Your task to perform on an android device: delete browsing data in the chrome app Image 0: 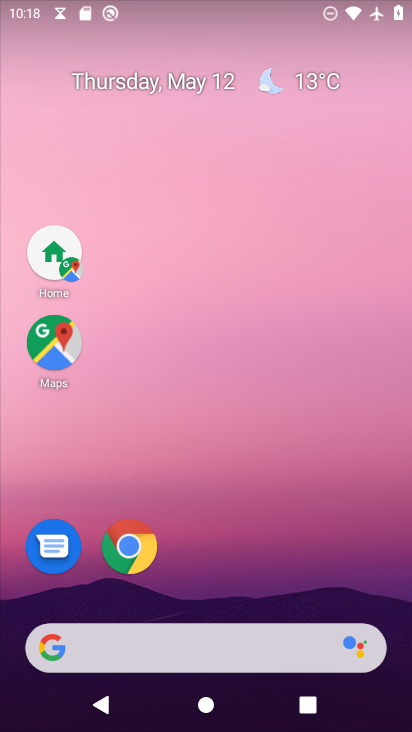
Step 0: click (139, 560)
Your task to perform on an android device: delete browsing data in the chrome app Image 1: 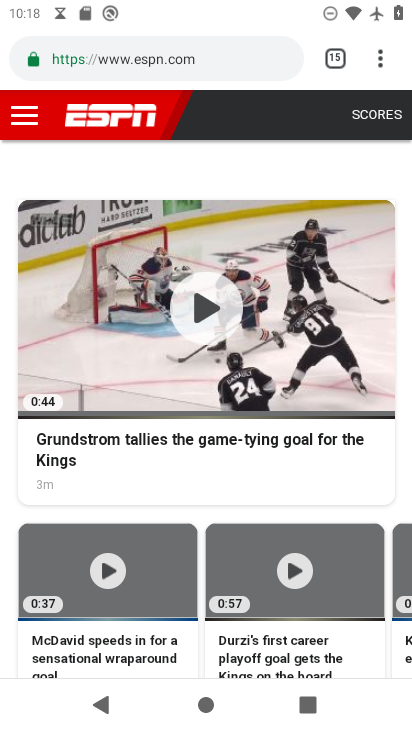
Step 1: drag from (376, 63) to (218, 584)
Your task to perform on an android device: delete browsing data in the chrome app Image 2: 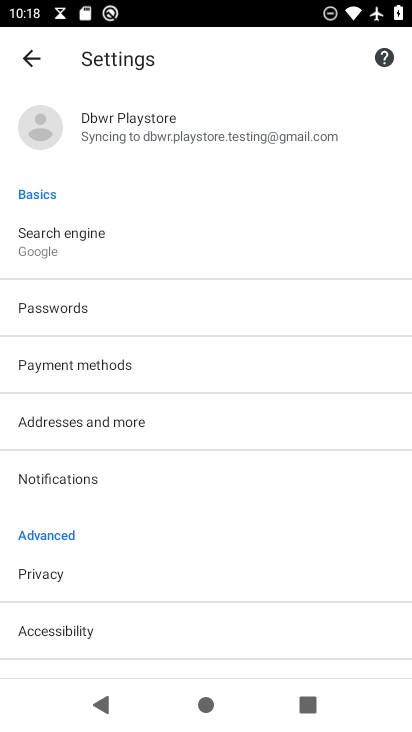
Step 2: drag from (153, 558) to (292, 319)
Your task to perform on an android device: delete browsing data in the chrome app Image 3: 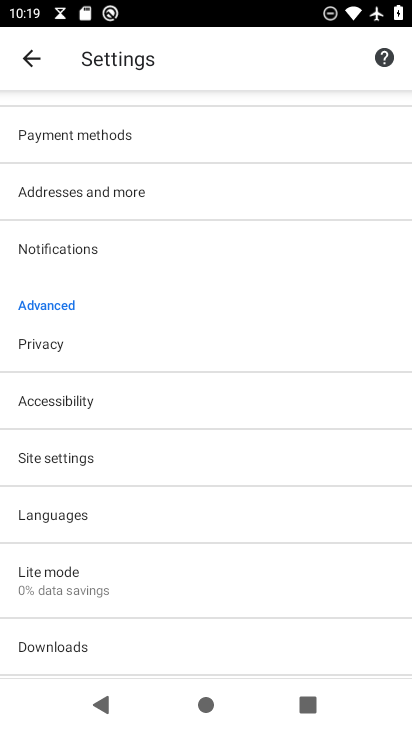
Step 3: click (47, 348)
Your task to perform on an android device: delete browsing data in the chrome app Image 4: 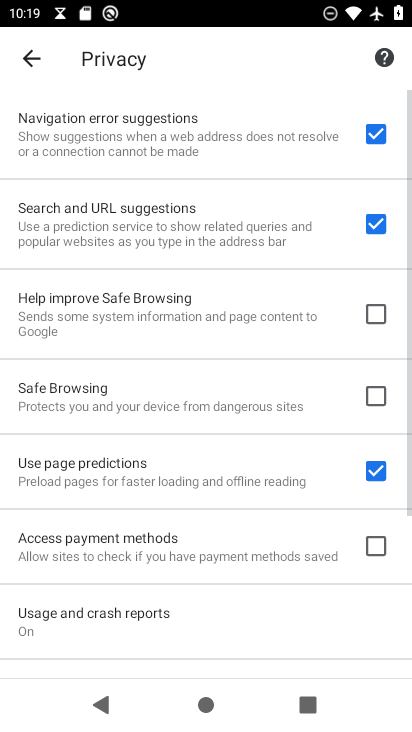
Step 4: drag from (137, 638) to (335, 112)
Your task to perform on an android device: delete browsing data in the chrome app Image 5: 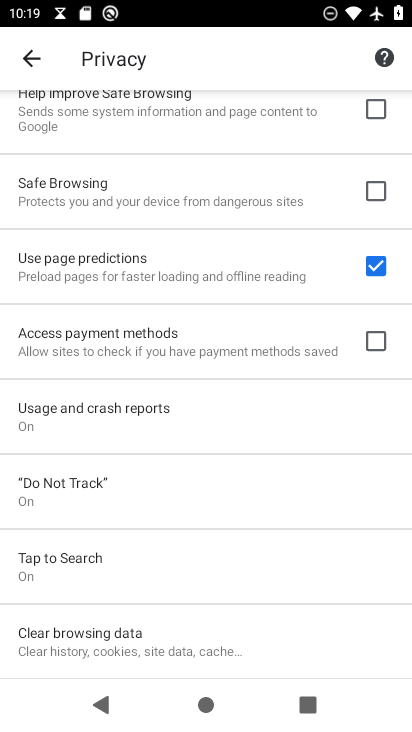
Step 5: click (55, 638)
Your task to perform on an android device: delete browsing data in the chrome app Image 6: 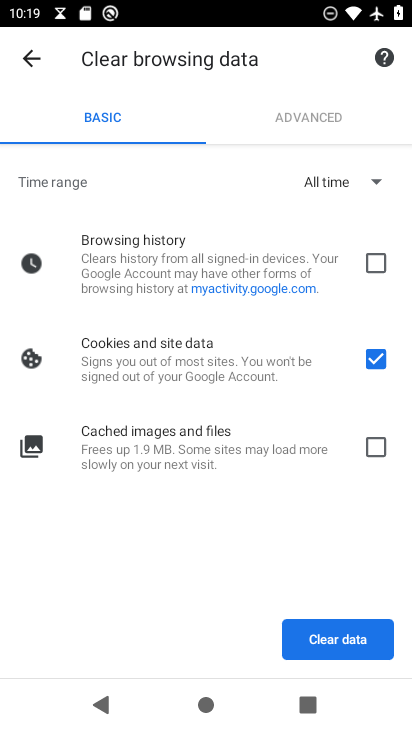
Step 6: click (376, 266)
Your task to perform on an android device: delete browsing data in the chrome app Image 7: 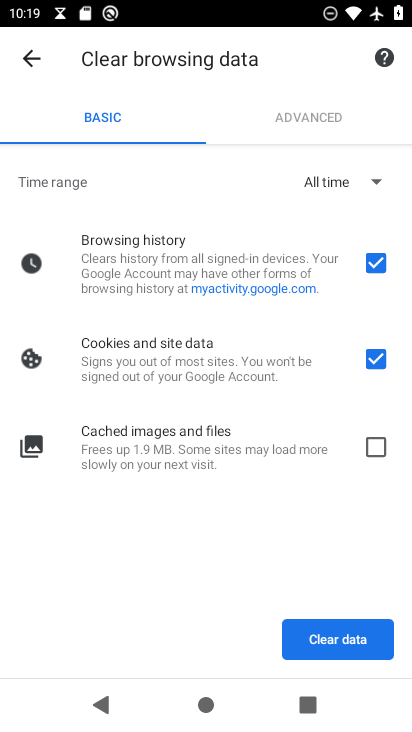
Step 7: click (376, 448)
Your task to perform on an android device: delete browsing data in the chrome app Image 8: 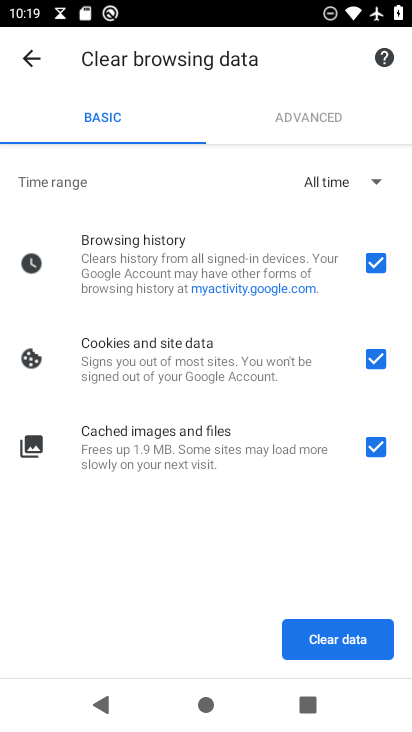
Step 8: click (333, 637)
Your task to perform on an android device: delete browsing data in the chrome app Image 9: 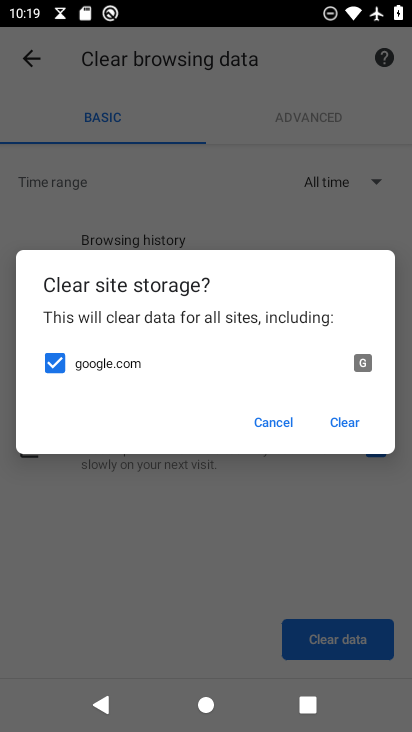
Step 9: click (341, 427)
Your task to perform on an android device: delete browsing data in the chrome app Image 10: 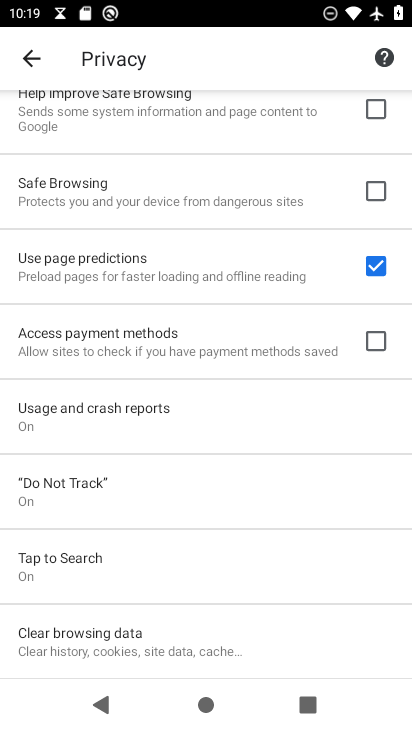
Step 10: task complete